Your task to perform on an android device: Open Amazon Image 0: 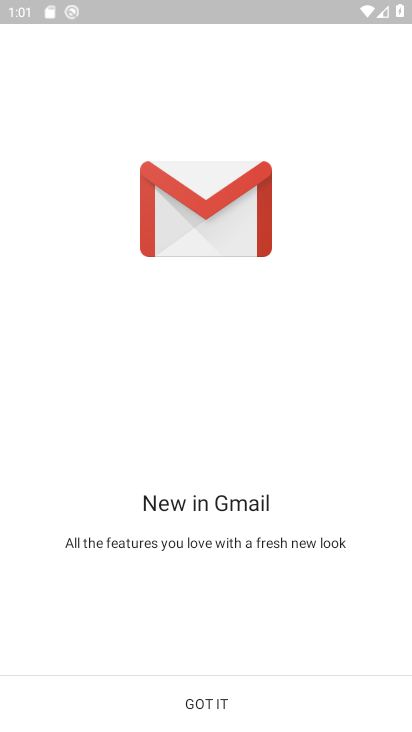
Step 0: press home button
Your task to perform on an android device: Open Amazon Image 1: 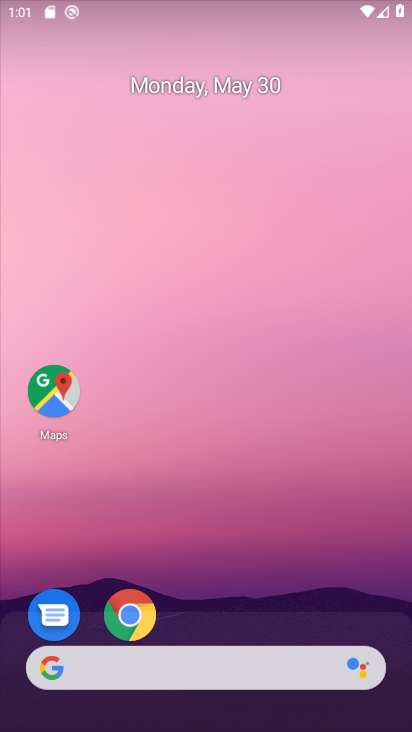
Step 1: click (149, 607)
Your task to perform on an android device: Open Amazon Image 2: 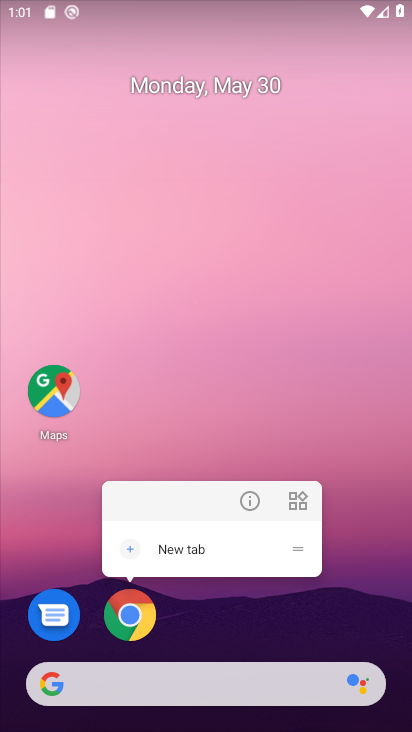
Step 2: click (147, 609)
Your task to perform on an android device: Open Amazon Image 3: 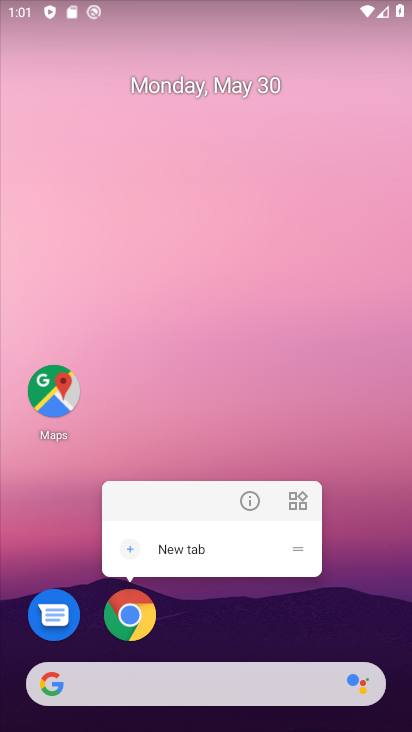
Step 3: click (148, 601)
Your task to perform on an android device: Open Amazon Image 4: 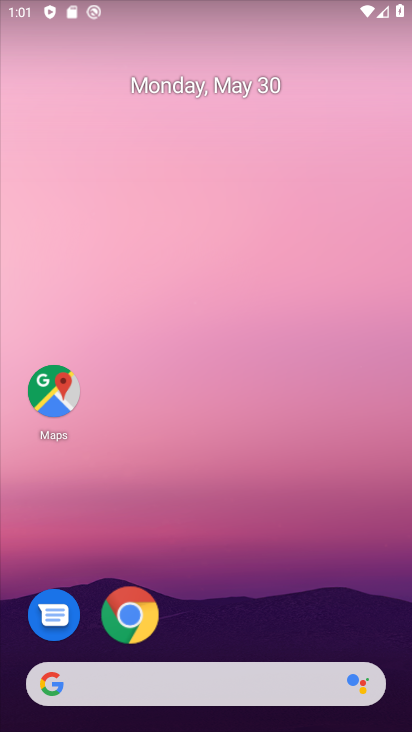
Step 4: click (127, 611)
Your task to perform on an android device: Open Amazon Image 5: 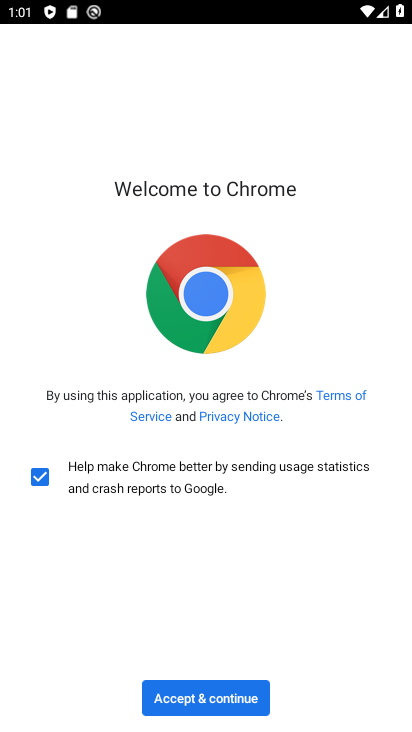
Step 5: click (219, 704)
Your task to perform on an android device: Open Amazon Image 6: 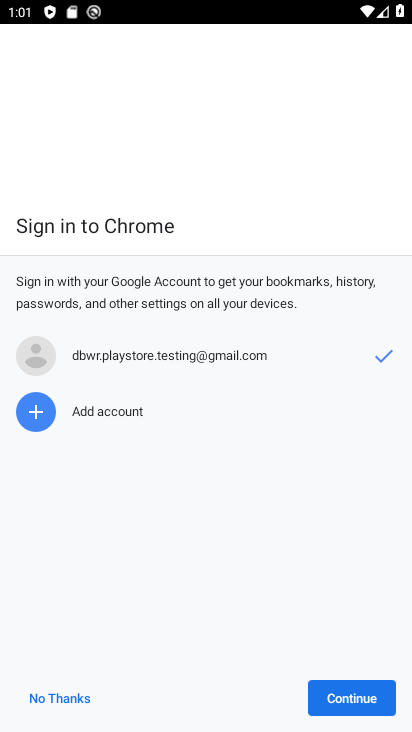
Step 6: click (386, 693)
Your task to perform on an android device: Open Amazon Image 7: 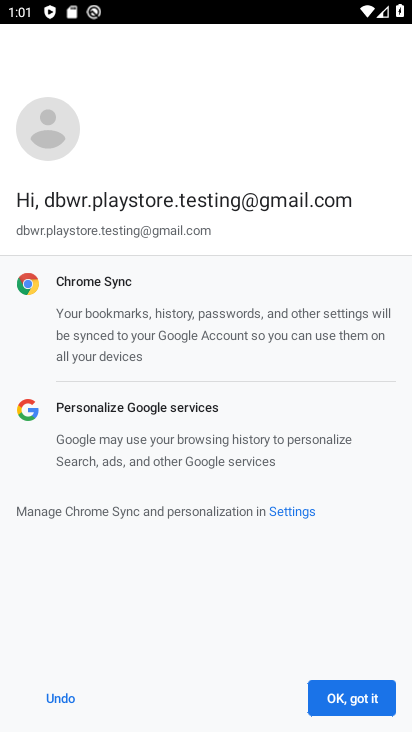
Step 7: click (386, 693)
Your task to perform on an android device: Open Amazon Image 8: 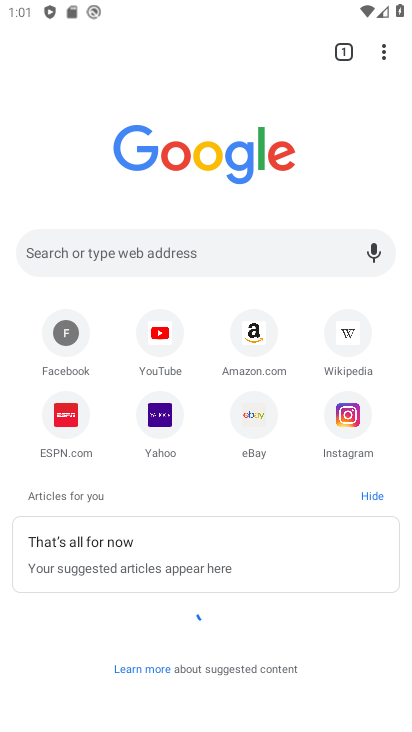
Step 8: click (265, 331)
Your task to perform on an android device: Open Amazon Image 9: 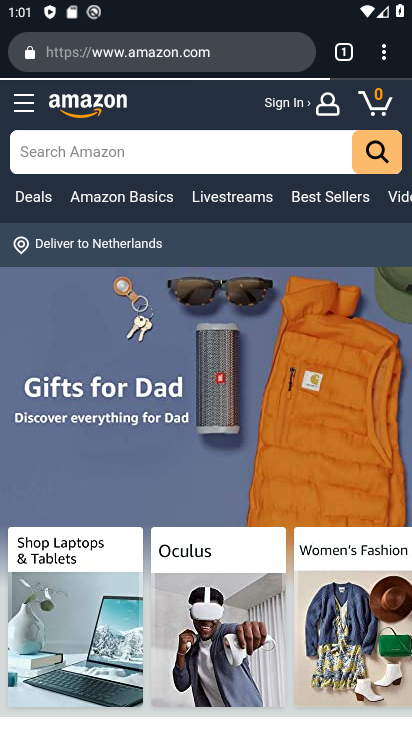
Step 9: task complete